Your task to perform on an android device: Play the last video I watched on Youtube Image 0: 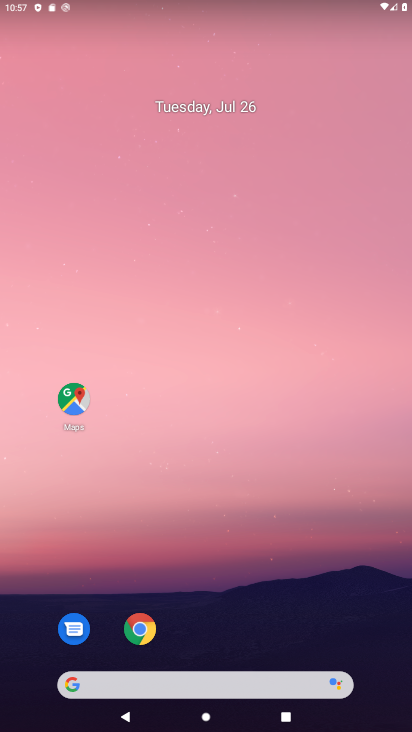
Step 0: drag from (281, 644) to (235, 164)
Your task to perform on an android device: Play the last video I watched on Youtube Image 1: 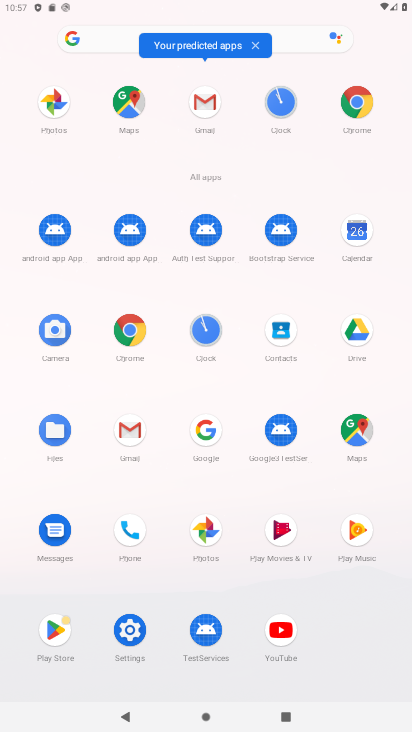
Step 1: click (284, 625)
Your task to perform on an android device: Play the last video I watched on Youtube Image 2: 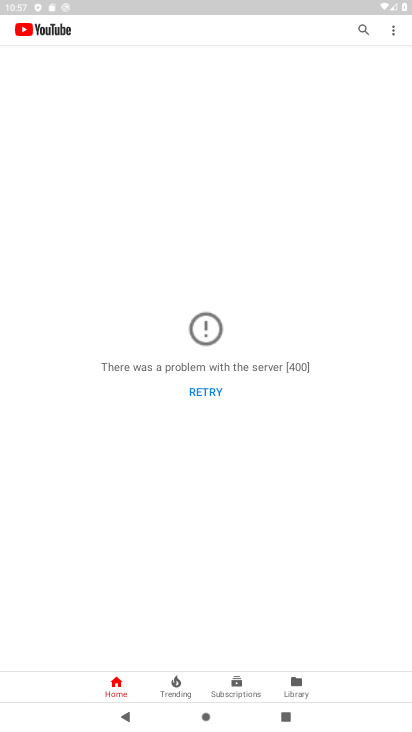
Step 2: click (291, 677)
Your task to perform on an android device: Play the last video I watched on Youtube Image 3: 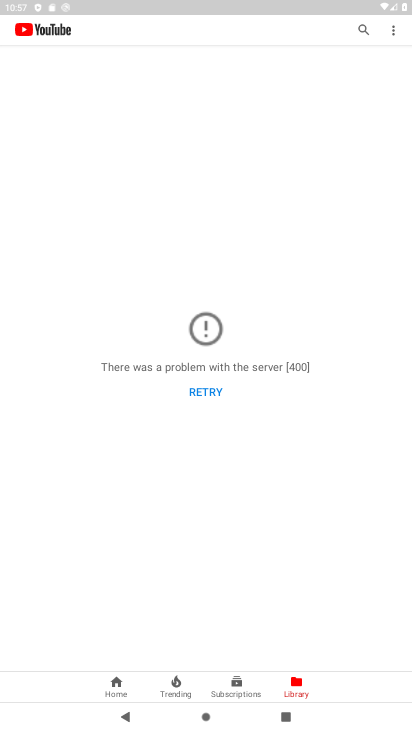
Step 3: task complete